Your task to perform on an android device: turn on priority inbox in the gmail app Image 0: 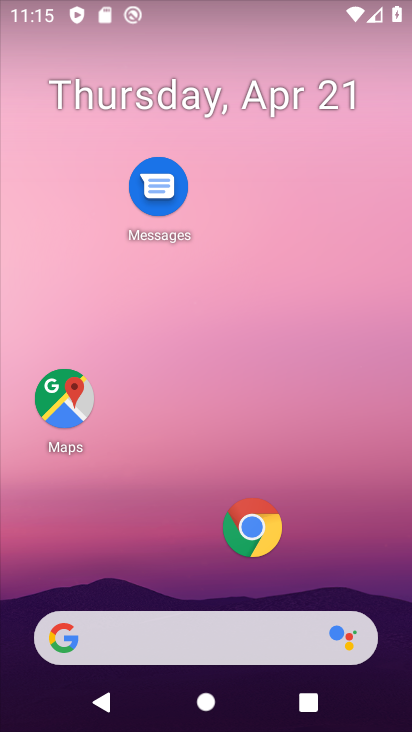
Step 0: drag from (182, 593) to (164, 73)
Your task to perform on an android device: turn on priority inbox in the gmail app Image 1: 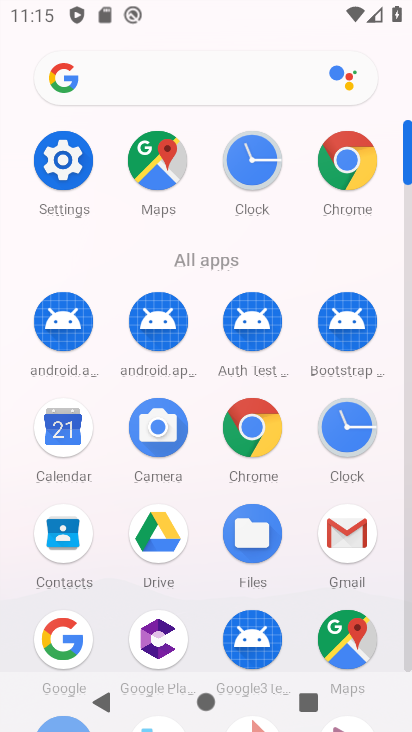
Step 1: click (349, 523)
Your task to perform on an android device: turn on priority inbox in the gmail app Image 2: 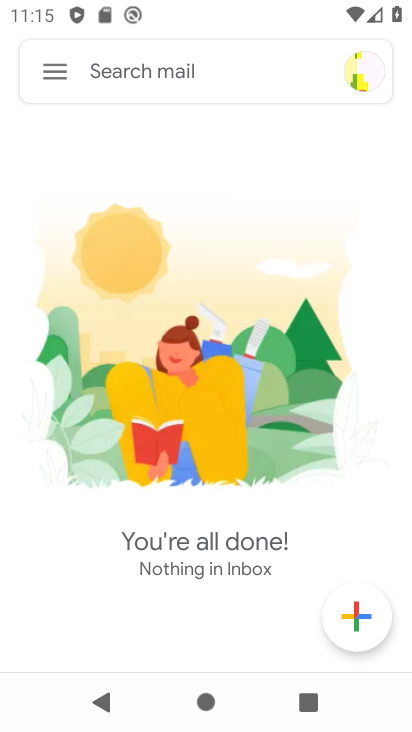
Step 2: click (49, 72)
Your task to perform on an android device: turn on priority inbox in the gmail app Image 3: 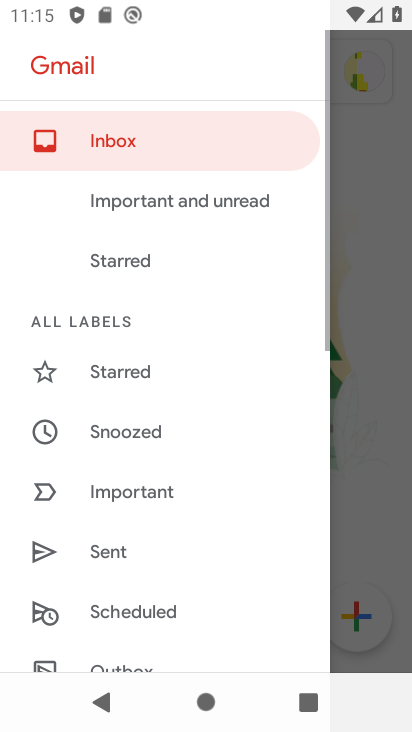
Step 3: drag from (73, 577) to (79, 28)
Your task to perform on an android device: turn on priority inbox in the gmail app Image 4: 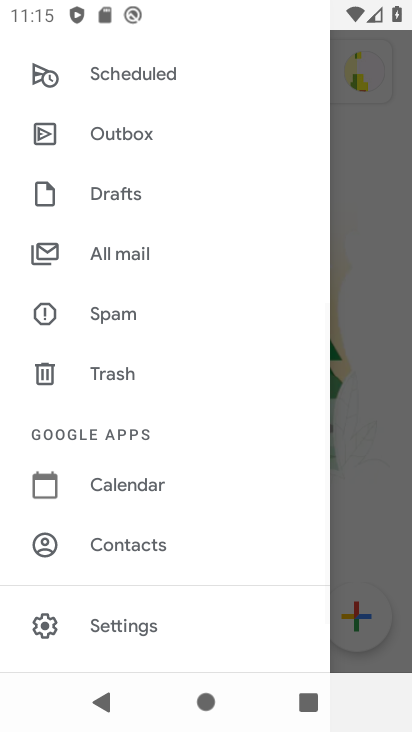
Step 4: drag from (125, 621) to (114, 269)
Your task to perform on an android device: turn on priority inbox in the gmail app Image 5: 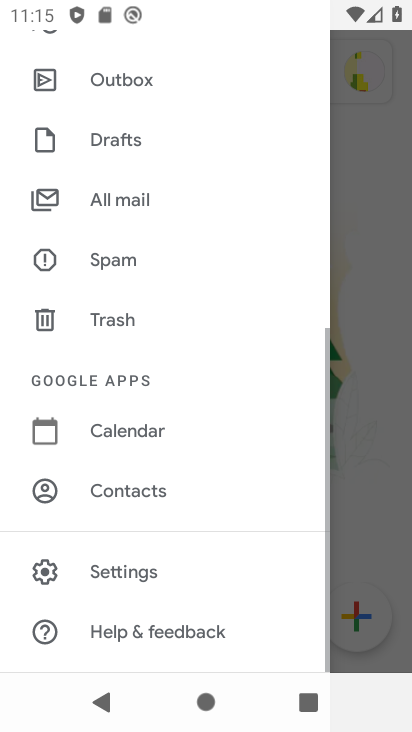
Step 5: click (111, 582)
Your task to perform on an android device: turn on priority inbox in the gmail app Image 6: 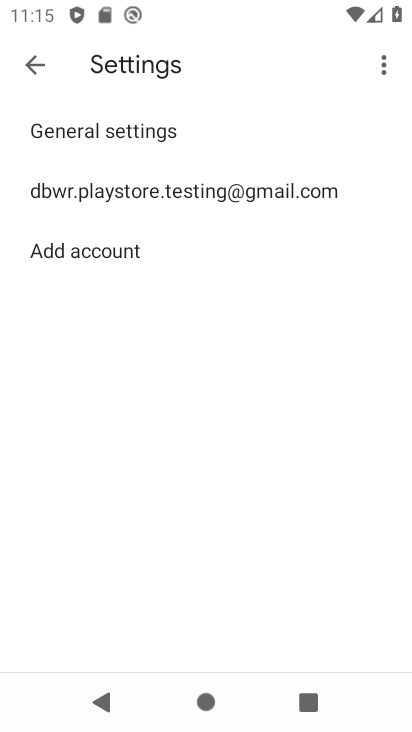
Step 6: click (114, 215)
Your task to perform on an android device: turn on priority inbox in the gmail app Image 7: 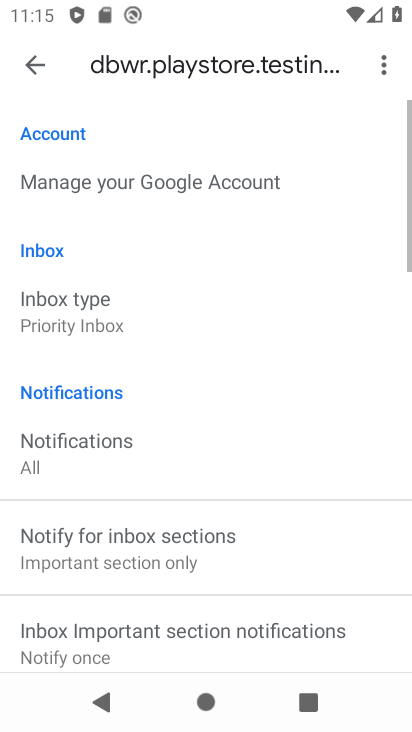
Step 7: drag from (158, 609) to (154, 395)
Your task to perform on an android device: turn on priority inbox in the gmail app Image 8: 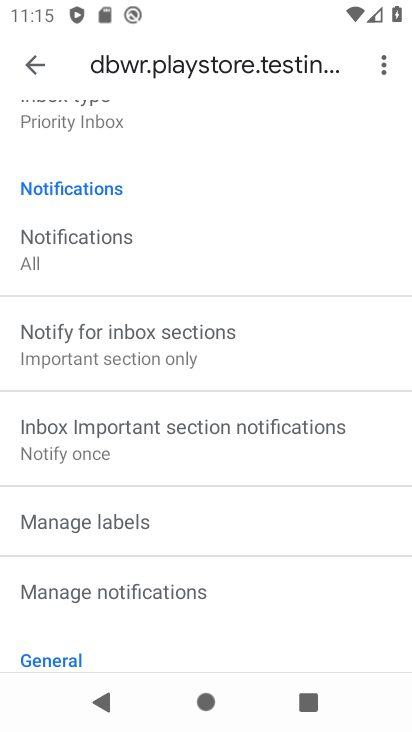
Step 8: click (66, 124)
Your task to perform on an android device: turn on priority inbox in the gmail app Image 9: 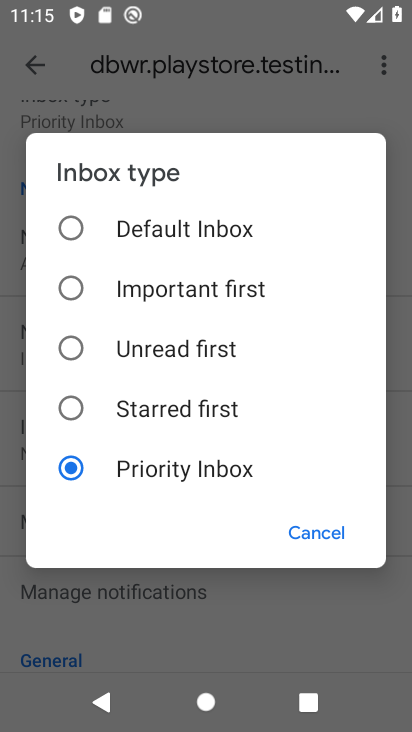
Step 9: task complete